Your task to perform on an android device: Open Yahoo.com Image 0: 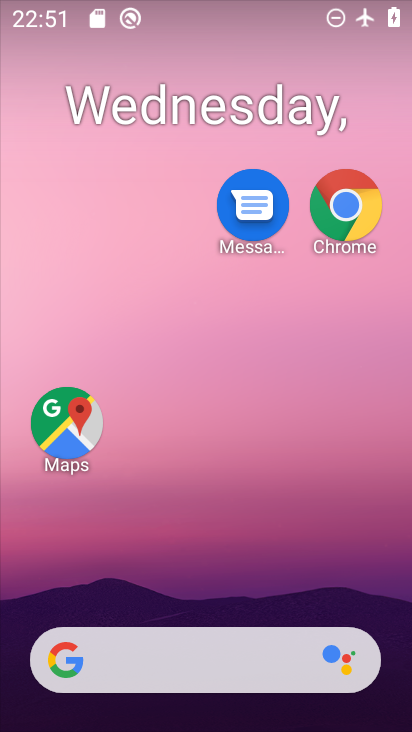
Step 0: drag from (177, 598) to (207, 263)
Your task to perform on an android device: Open Yahoo.com Image 1: 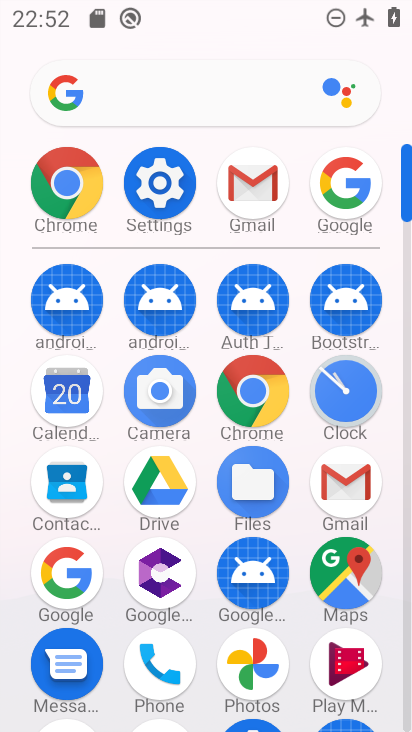
Step 1: click (257, 391)
Your task to perform on an android device: Open Yahoo.com Image 2: 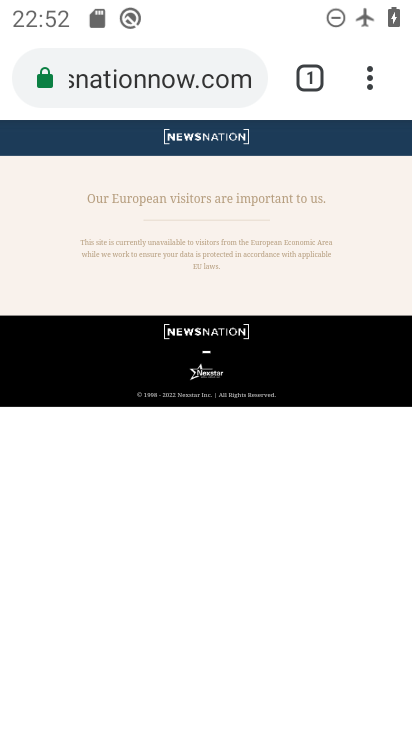
Step 2: click (204, 84)
Your task to perform on an android device: Open Yahoo.com Image 3: 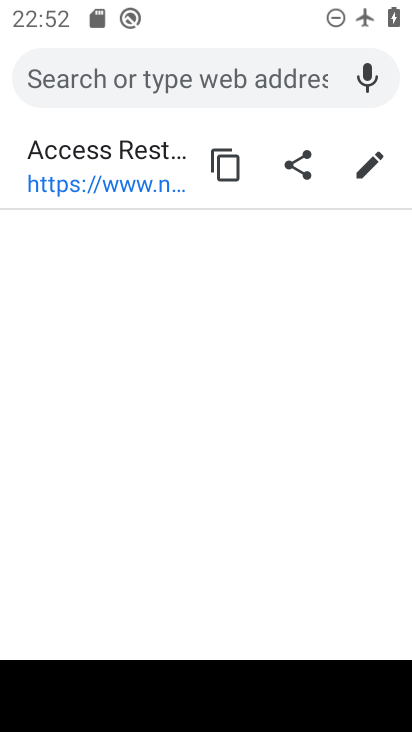
Step 3: click (136, 70)
Your task to perform on an android device: Open Yahoo.com Image 4: 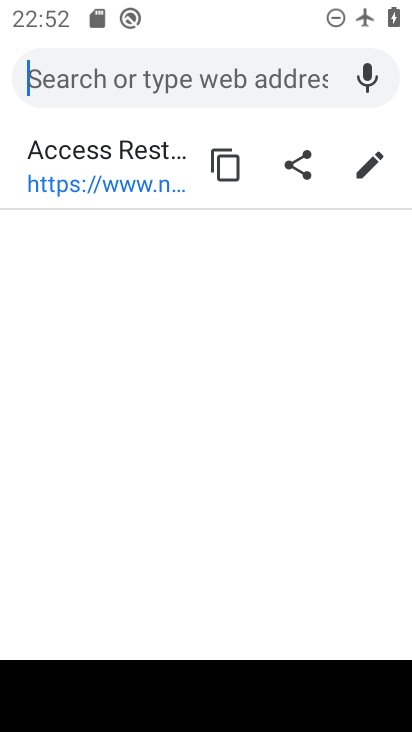
Step 4: type "yahoo"
Your task to perform on an android device: Open Yahoo.com Image 5: 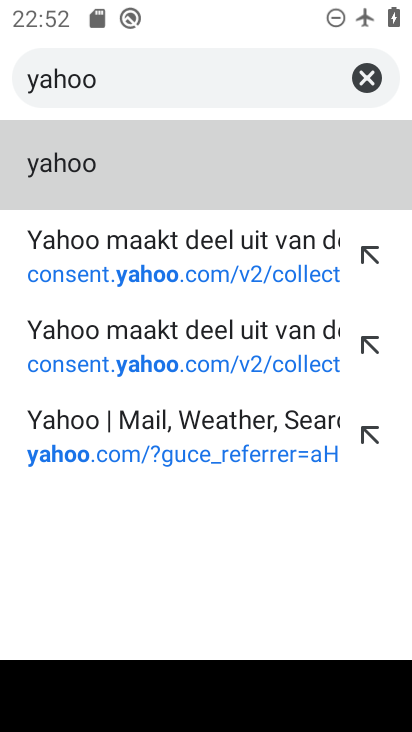
Step 5: click (109, 174)
Your task to perform on an android device: Open Yahoo.com Image 6: 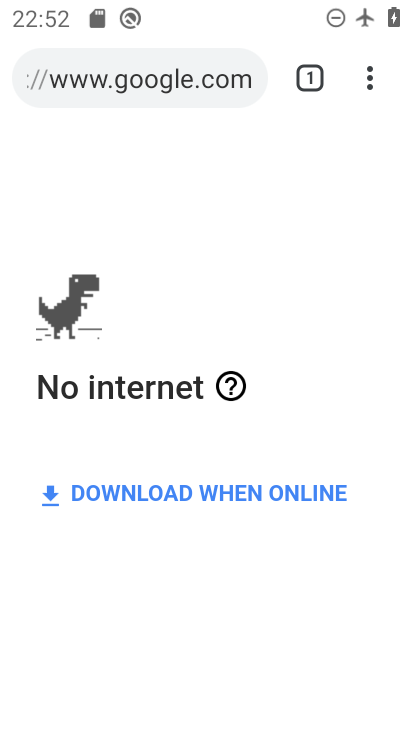
Step 6: task complete